Your task to perform on an android device: snooze an email in the gmail app Image 0: 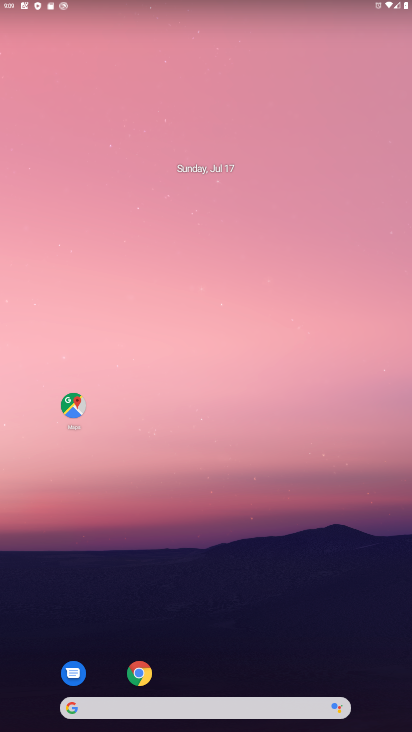
Step 0: drag from (292, 656) to (272, 11)
Your task to perform on an android device: snooze an email in the gmail app Image 1: 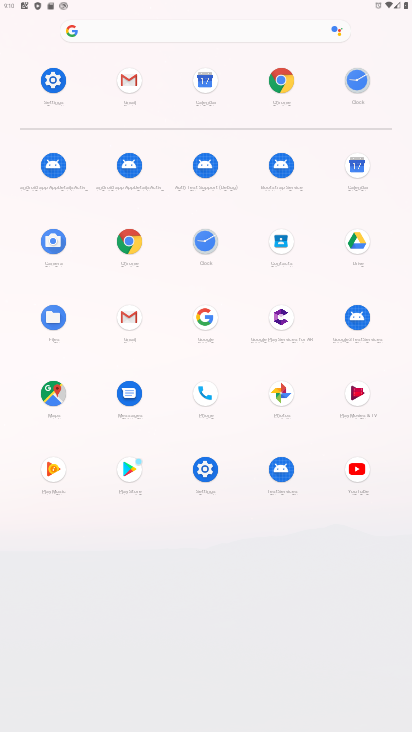
Step 1: click (121, 77)
Your task to perform on an android device: snooze an email in the gmail app Image 2: 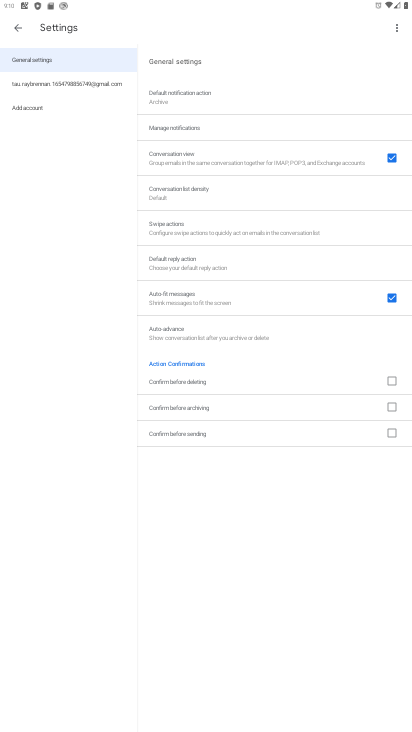
Step 2: click (17, 27)
Your task to perform on an android device: snooze an email in the gmail app Image 3: 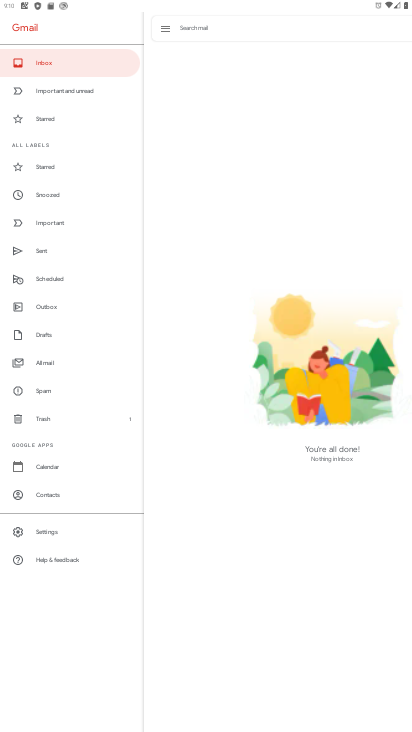
Step 3: click (49, 360)
Your task to perform on an android device: snooze an email in the gmail app Image 4: 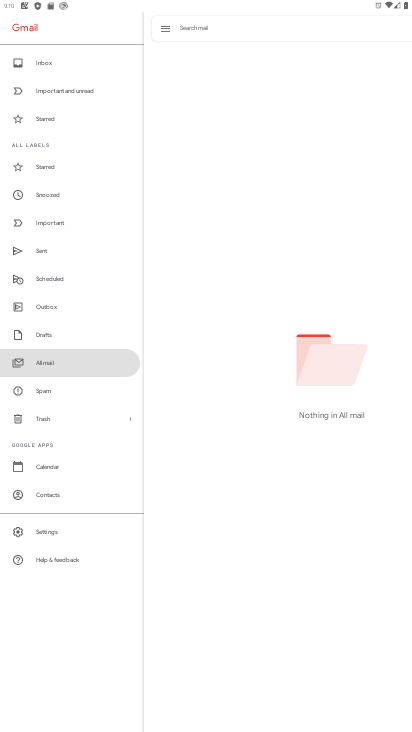
Step 4: task complete